Your task to perform on an android device: set an alarm Image 0: 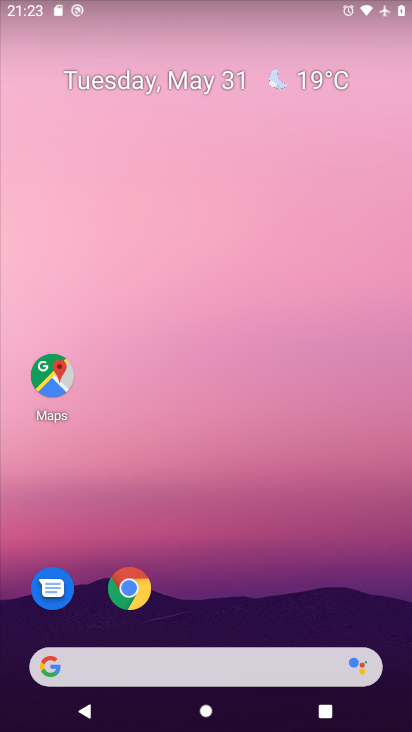
Step 0: press home button
Your task to perform on an android device: set an alarm Image 1: 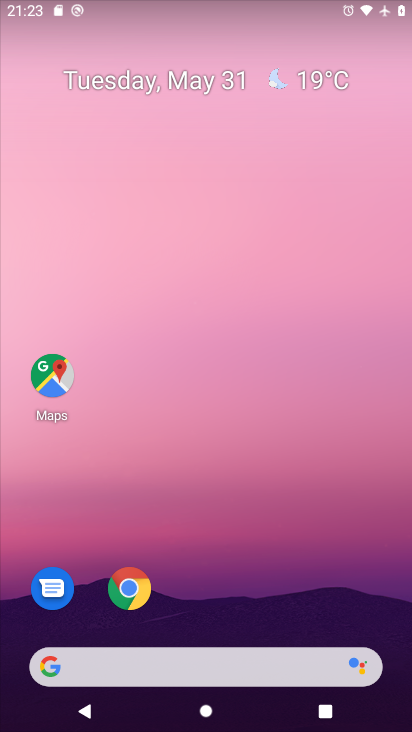
Step 1: drag from (146, 667) to (309, 93)
Your task to perform on an android device: set an alarm Image 2: 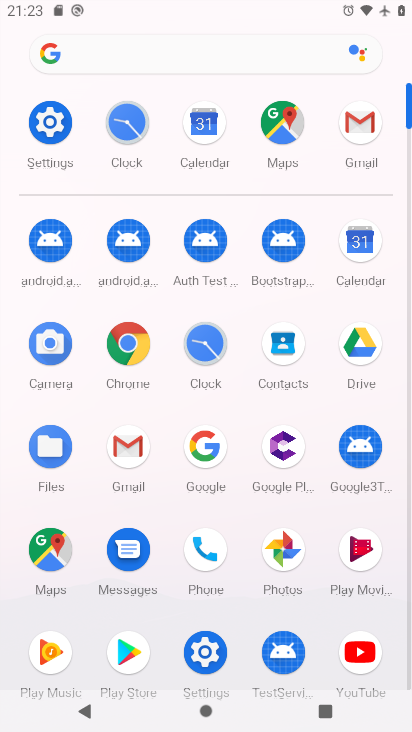
Step 2: click (200, 337)
Your task to perform on an android device: set an alarm Image 3: 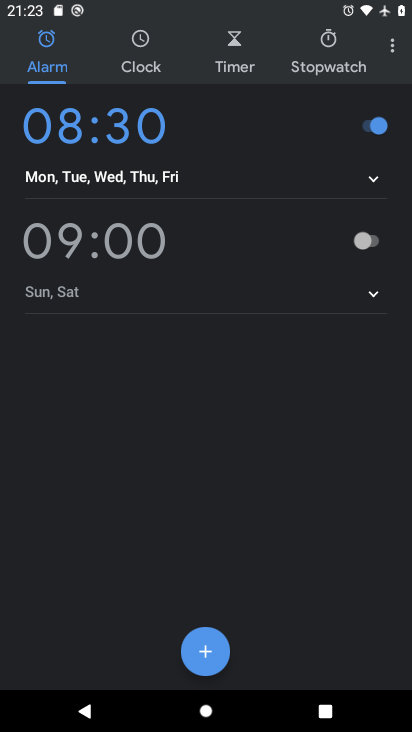
Step 3: click (370, 242)
Your task to perform on an android device: set an alarm Image 4: 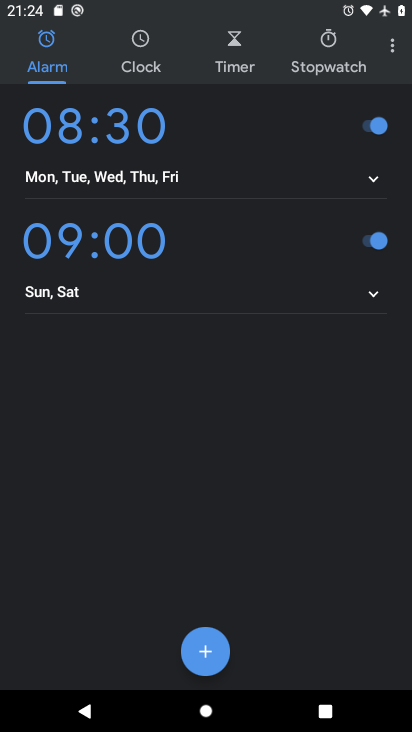
Step 4: task complete